Your task to perform on an android device: set default search engine in the chrome app Image 0: 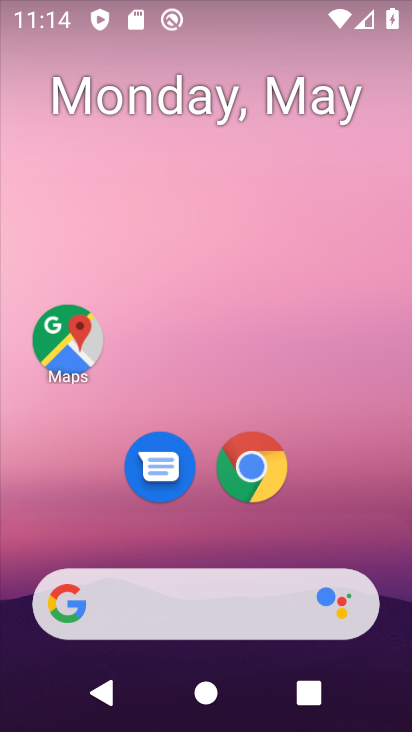
Step 0: drag from (380, 600) to (152, 145)
Your task to perform on an android device: set default search engine in the chrome app Image 1: 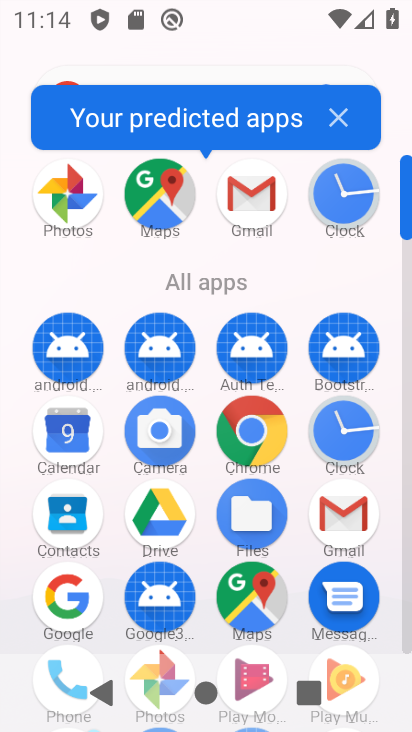
Step 1: click (254, 429)
Your task to perform on an android device: set default search engine in the chrome app Image 2: 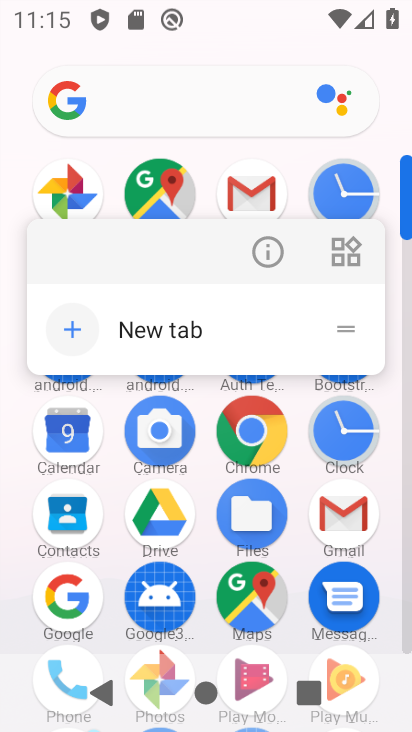
Step 2: click (178, 330)
Your task to perform on an android device: set default search engine in the chrome app Image 3: 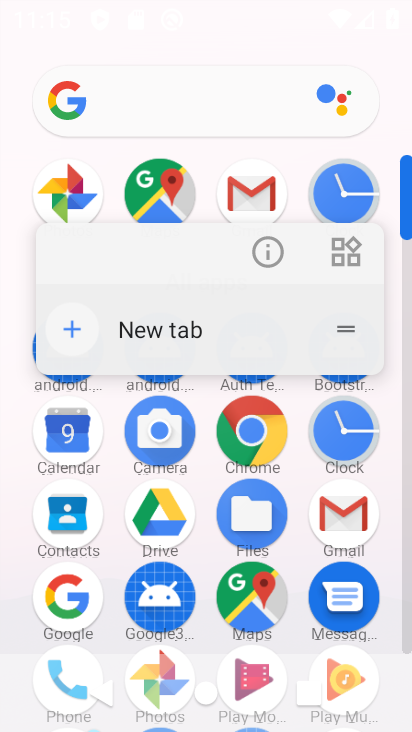
Step 3: click (179, 332)
Your task to perform on an android device: set default search engine in the chrome app Image 4: 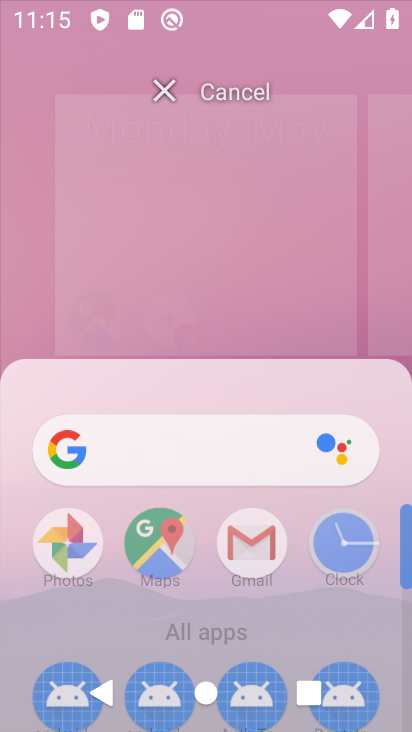
Step 4: click (182, 335)
Your task to perform on an android device: set default search engine in the chrome app Image 5: 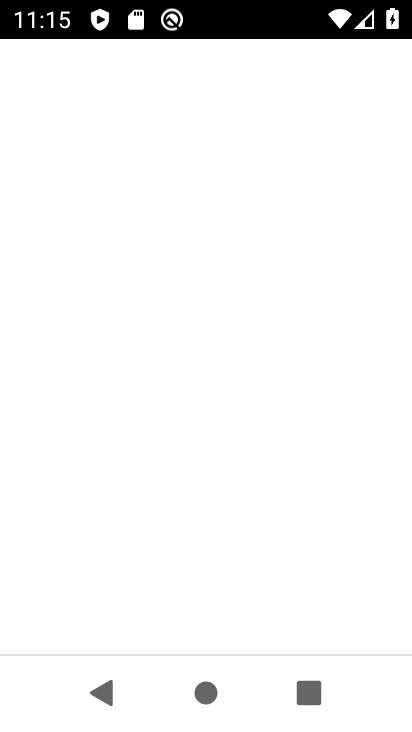
Step 5: click (254, 471)
Your task to perform on an android device: set default search engine in the chrome app Image 6: 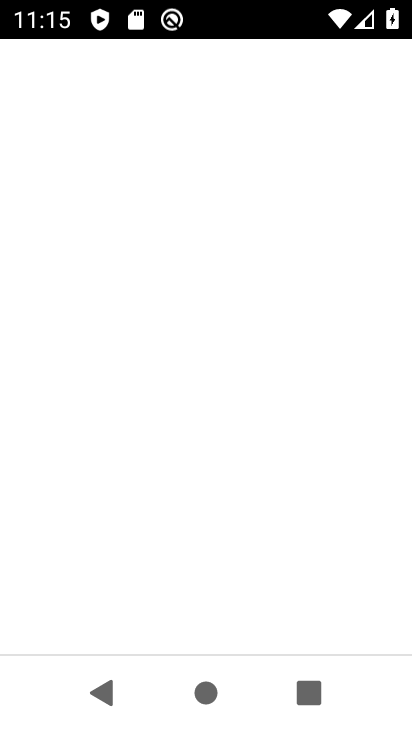
Step 6: click (254, 471)
Your task to perform on an android device: set default search engine in the chrome app Image 7: 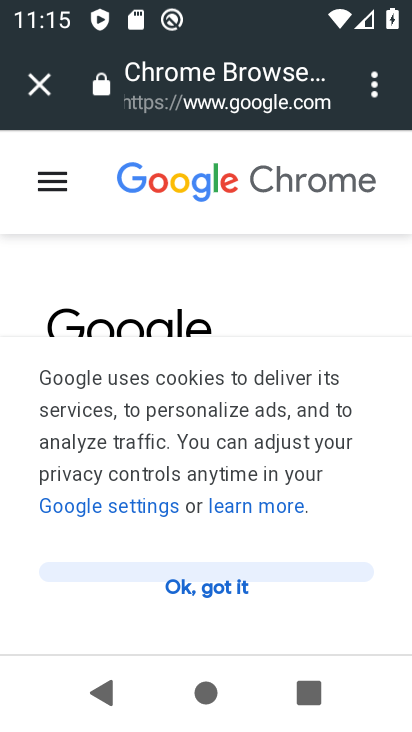
Step 7: click (210, 579)
Your task to perform on an android device: set default search engine in the chrome app Image 8: 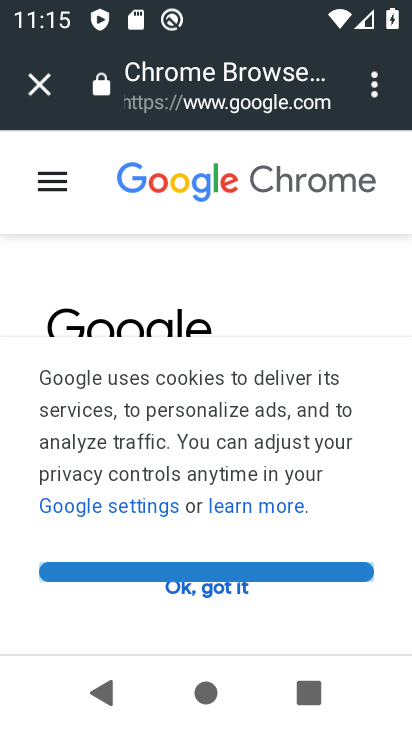
Step 8: click (212, 579)
Your task to perform on an android device: set default search engine in the chrome app Image 9: 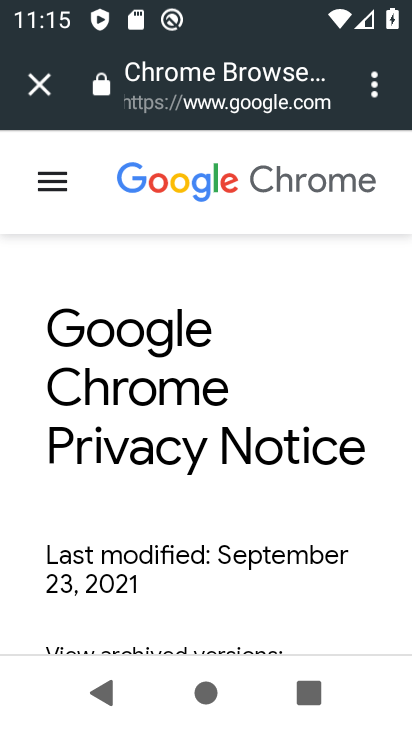
Step 9: click (212, 579)
Your task to perform on an android device: set default search engine in the chrome app Image 10: 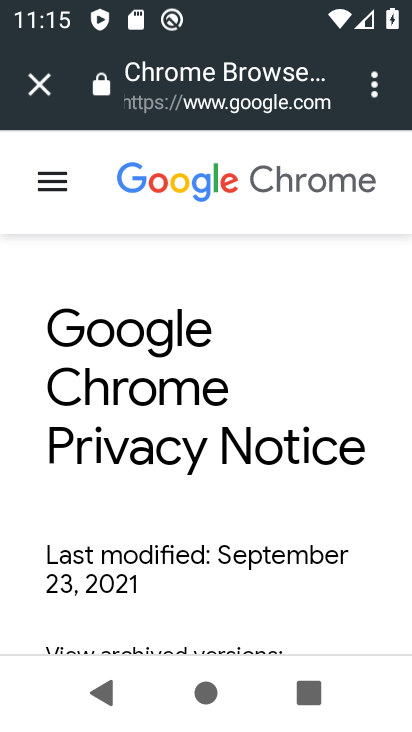
Step 10: click (212, 579)
Your task to perform on an android device: set default search engine in the chrome app Image 11: 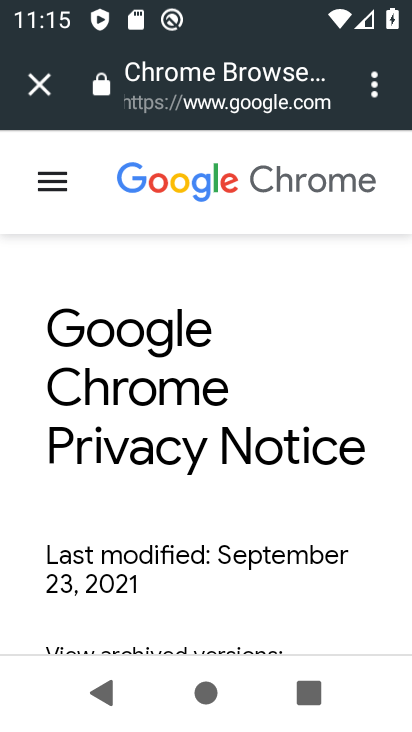
Step 11: drag from (366, 93) to (348, 139)
Your task to perform on an android device: set default search engine in the chrome app Image 12: 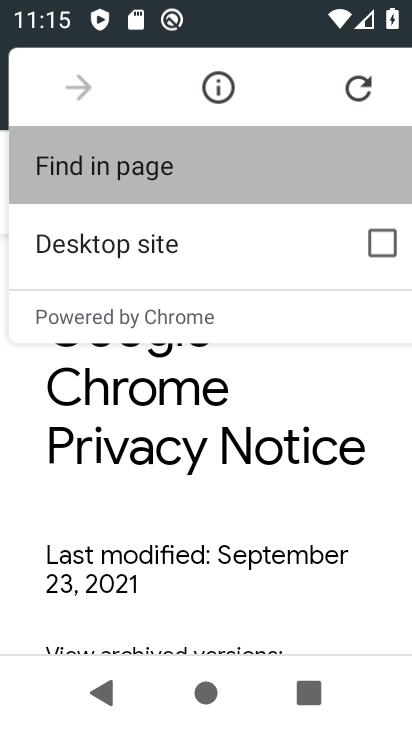
Step 12: drag from (352, 135) to (272, 418)
Your task to perform on an android device: set default search engine in the chrome app Image 13: 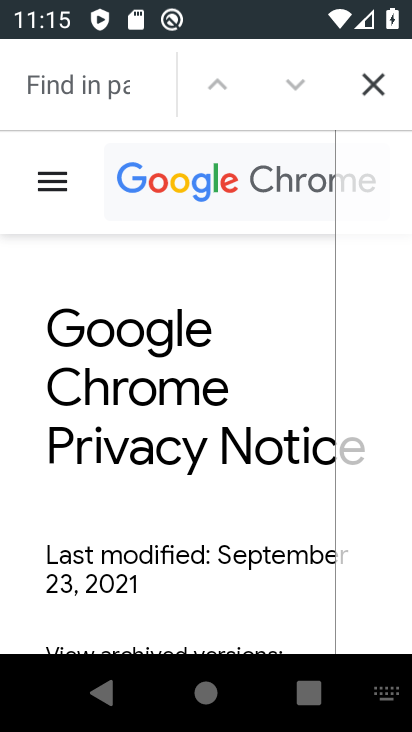
Step 13: press home button
Your task to perform on an android device: set default search engine in the chrome app Image 14: 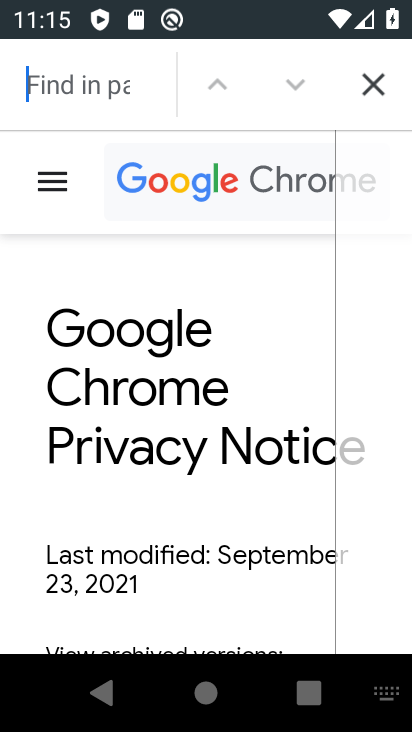
Step 14: press home button
Your task to perform on an android device: set default search engine in the chrome app Image 15: 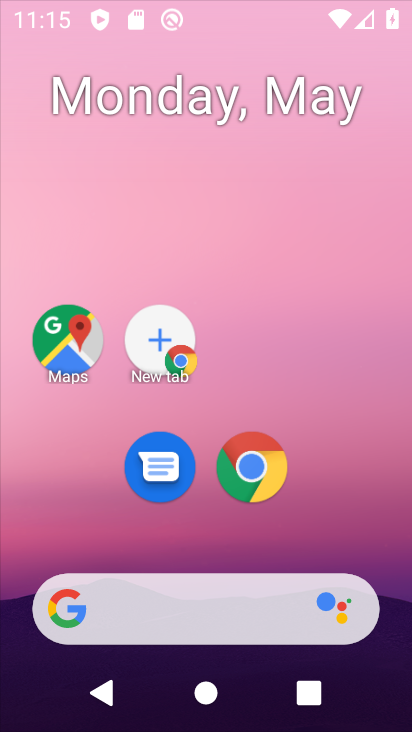
Step 15: press home button
Your task to perform on an android device: set default search engine in the chrome app Image 16: 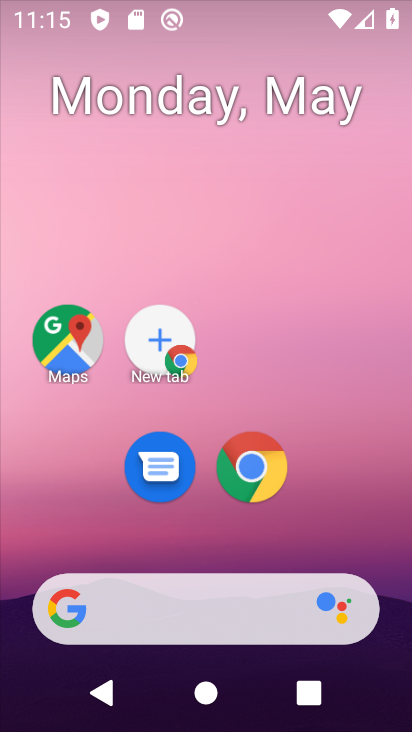
Step 16: press home button
Your task to perform on an android device: set default search engine in the chrome app Image 17: 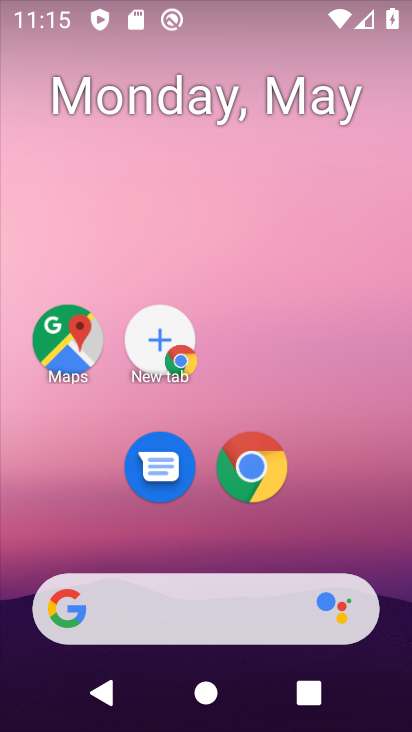
Step 17: drag from (349, 558) to (158, 2)
Your task to perform on an android device: set default search engine in the chrome app Image 18: 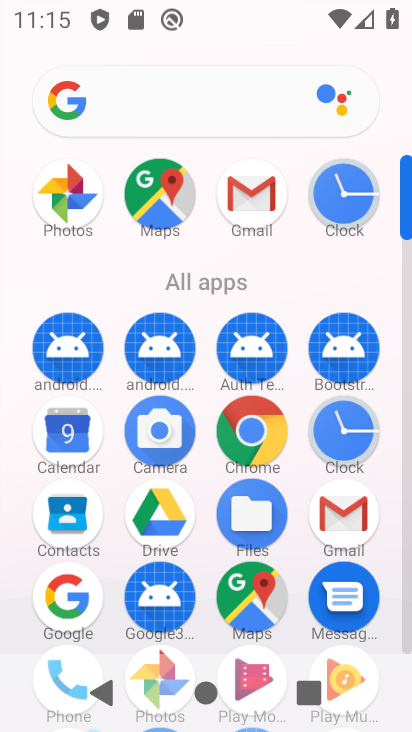
Step 18: click (258, 435)
Your task to perform on an android device: set default search engine in the chrome app Image 19: 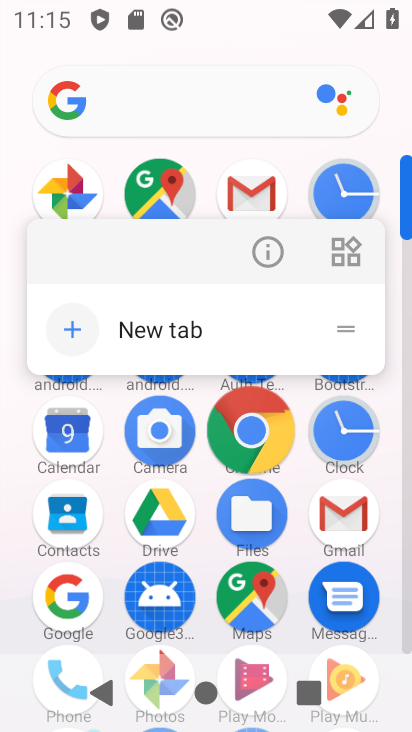
Step 19: click (255, 430)
Your task to perform on an android device: set default search engine in the chrome app Image 20: 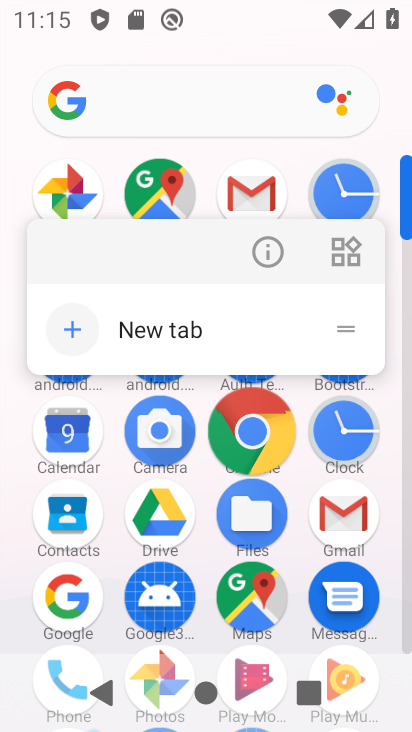
Step 20: click (256, 421)
Your task to perform on an android device: set default search engine in the chrome app Image 21: 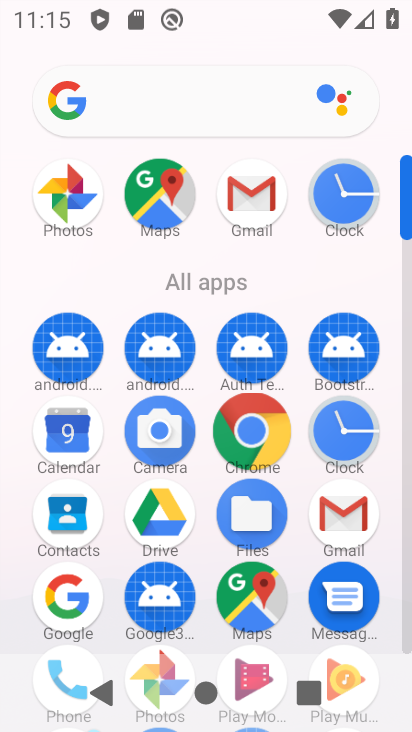
Step 21: click (257, 416)
Your task to perform on an android device: set default search engine in the chrome app Image 22: 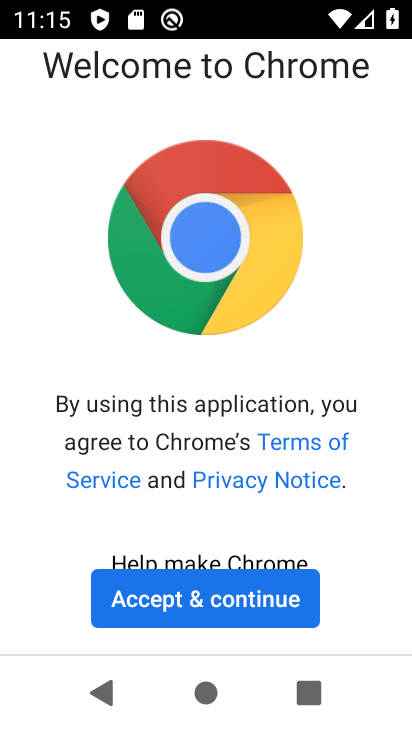
Step 22: click (210, 601)
Your task to perform on an android device: set default search engine in the chrome app Image 23: 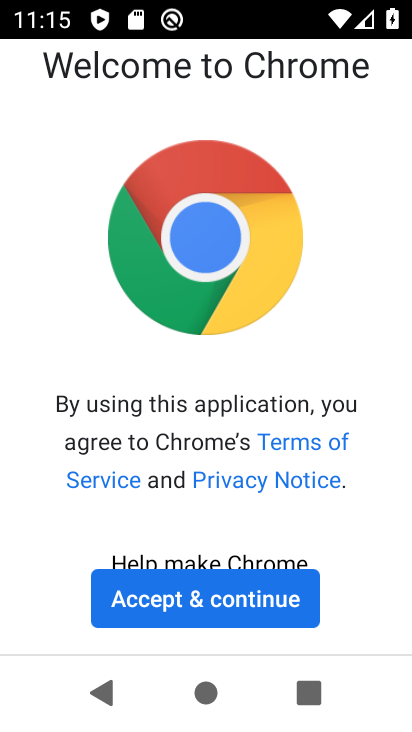
Step 23: click (209, 602)
Your task to perform on an android device: set default search engine in the chrome app Image 24: 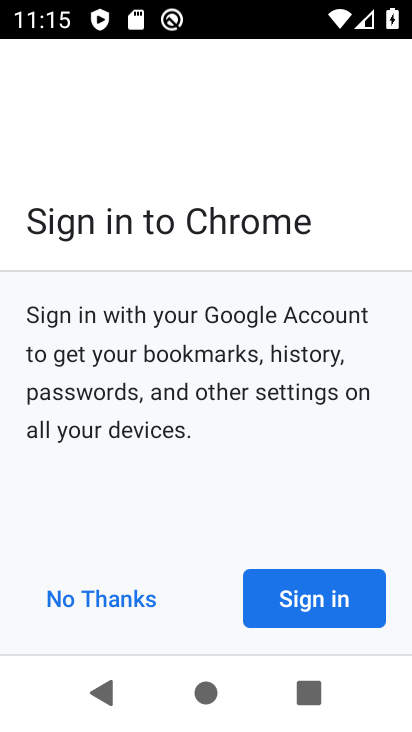
Step 24: click (210, 605)
Your task to perform on an android device: set default search engine in the chrome app Image 25: 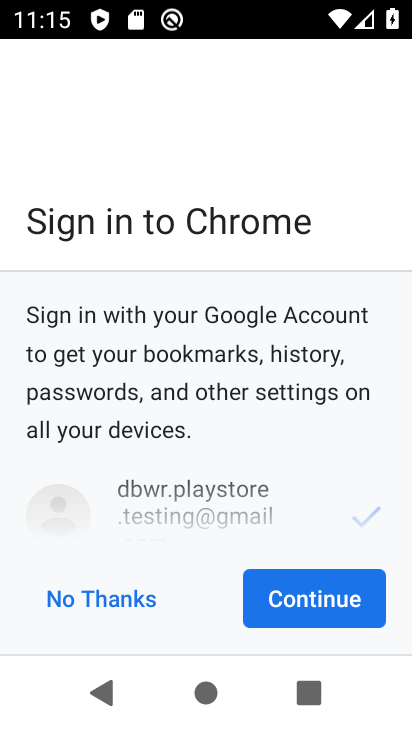
Step 25: click (210, 599)
Your task to perform on an android device: set default search engine in the chrome app Image 26: 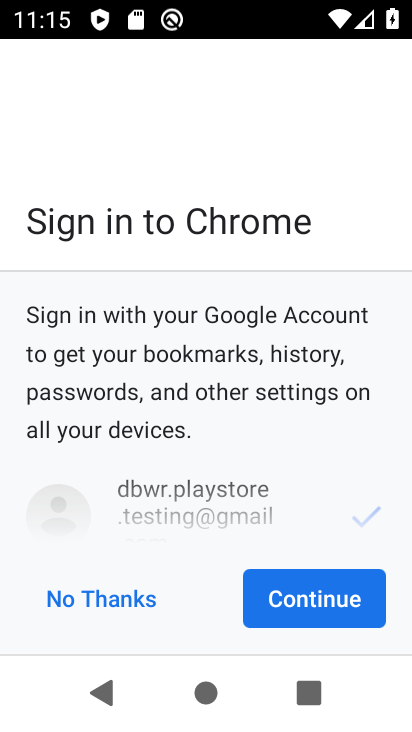
Step 26: click (314, 593)
Your task to perform on an android device: set default search engine in the chrome app Image 27: 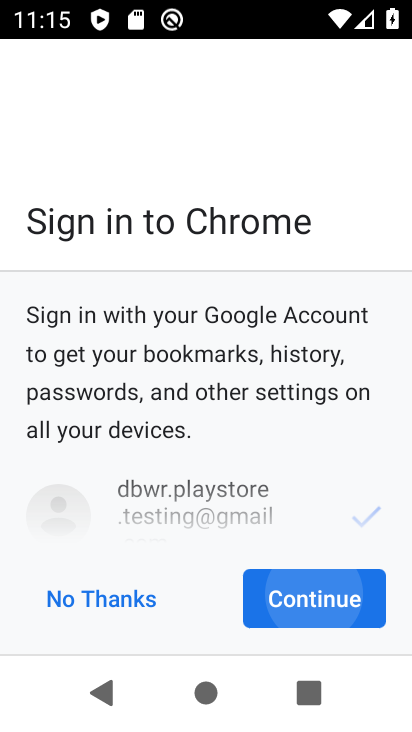
Step 27: click (315, 593)
Your task to perform on an android device: set default search engine in the chrome app Image 28: 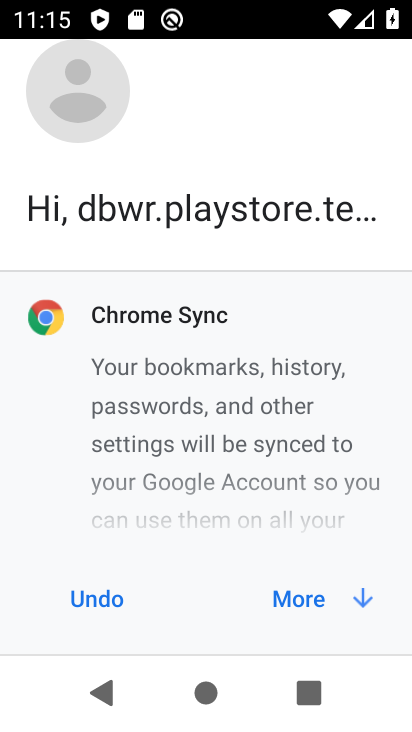
Step 28: click (315, 593)
Your task to perform on an android device: set default search engine in the chrome app Image 29: 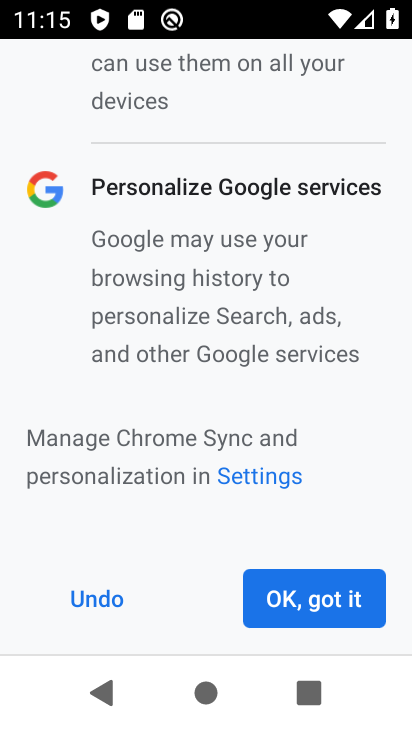
Step 29: click (332, 602)
Your task to perform on an android device: set default search engine in the chrome app Image 30: 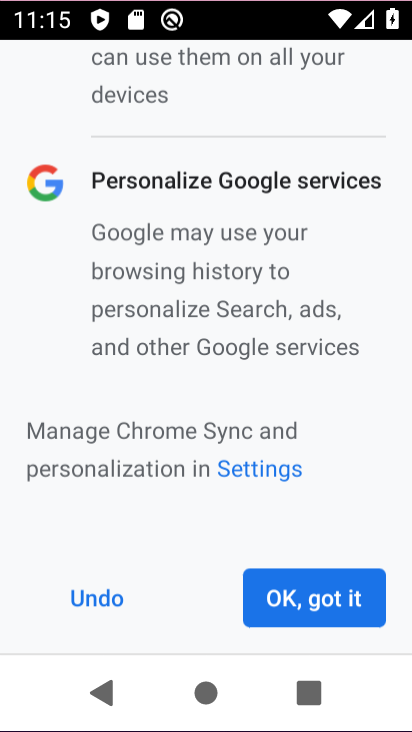
Step 30: click (334, 602)
Your task to perform on an android device: set default search engine in the chrome app Image 31: 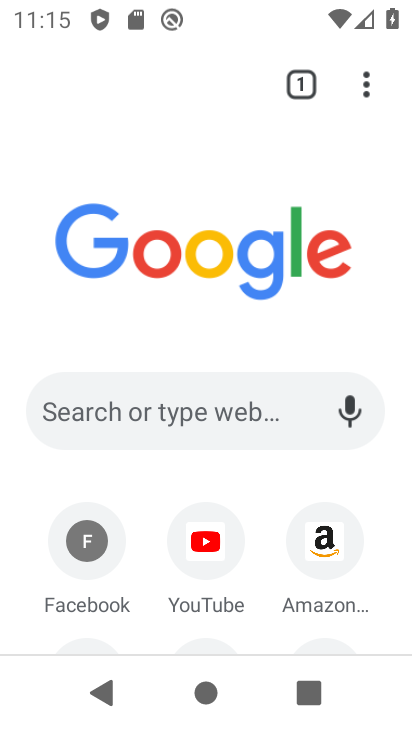
Step 31: drag from (365, 83) to (86, 532)
Your task to perform on an android device: set default search engine in the chrome app Image 32: 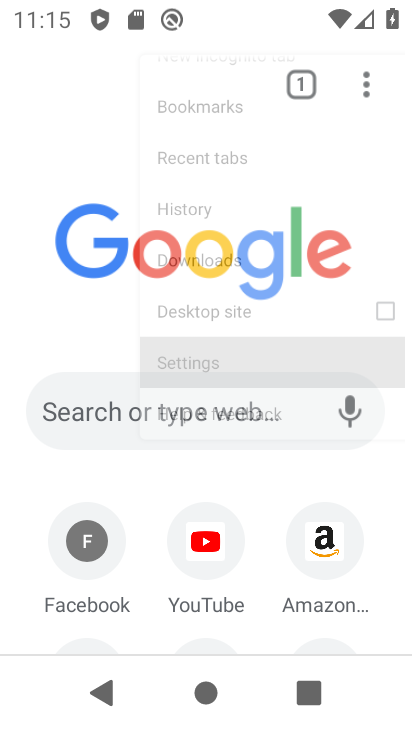
Step 32: click (86, 532)
Your task to perform on an android device: set default search engine in the chrome app Image 33: 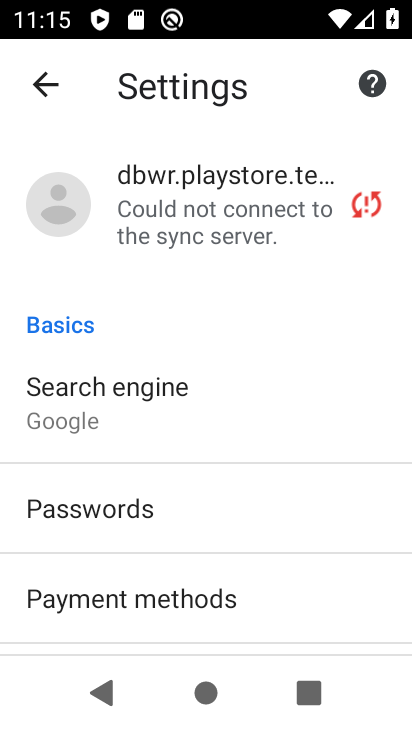
Step 33: click (81, 403)
Your task to perform on an android device: set default search engine in the chrome app Image 34: 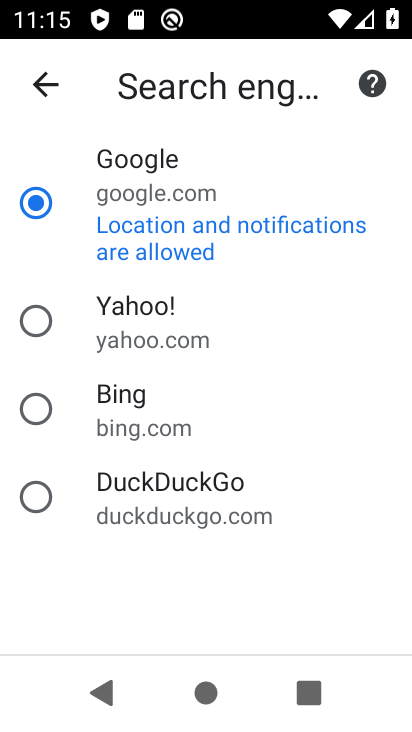
Step 34: click (39, 338)
Your task to perform on an android device: set default search engine in the chrome app Image 35: 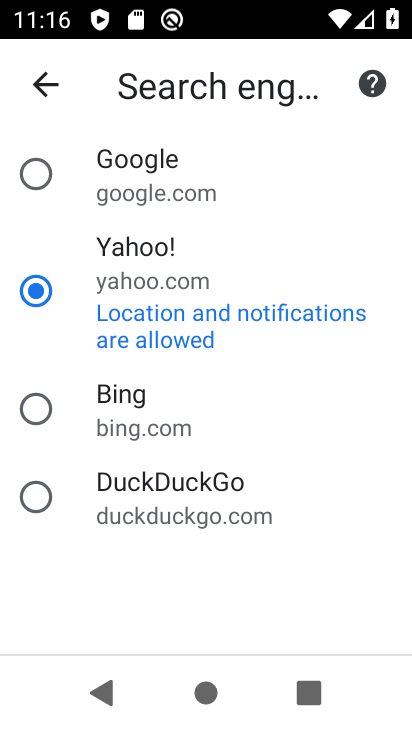
Step 35: click (33, 174)
Your task to perform on an android device: set default search engine in the chrome app Image 36: 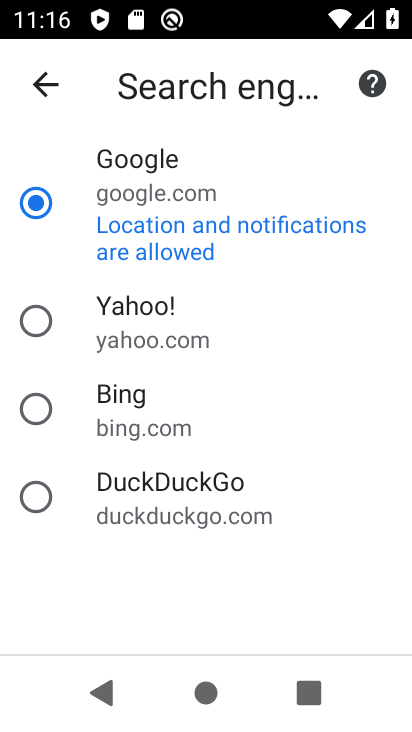
Step 36: task complete